Your task to perform on an android device: Search for flights from Zurich to Buenos aires Image 0: 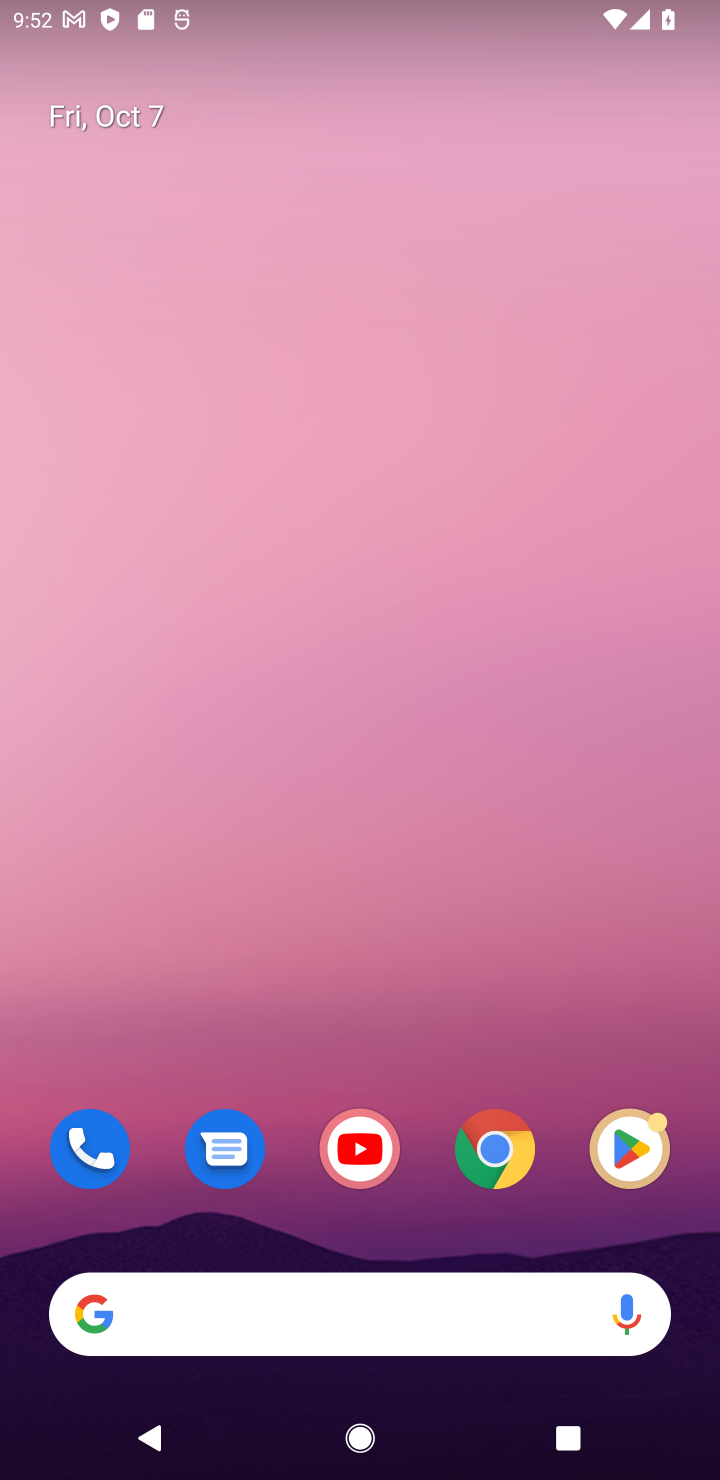
Step 0: click (256, 1309)
Your task to perform on an android device: Search for flights from Zurich to Buenos aires Image 1: 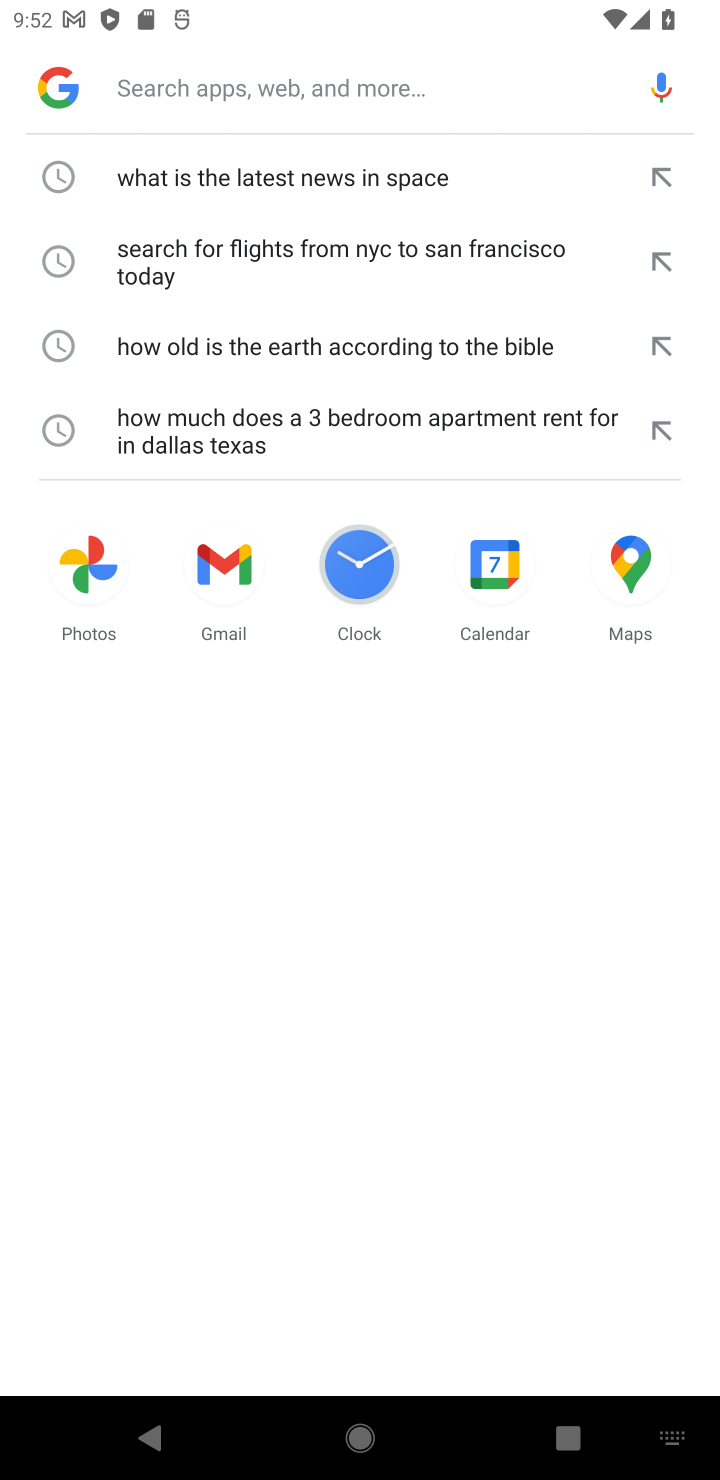
Step 1: type "Search for flights from Zurich to Buenos aires"
Your task to perform on an android device: Search for flights from Zurich to Buenos aires Image 2: 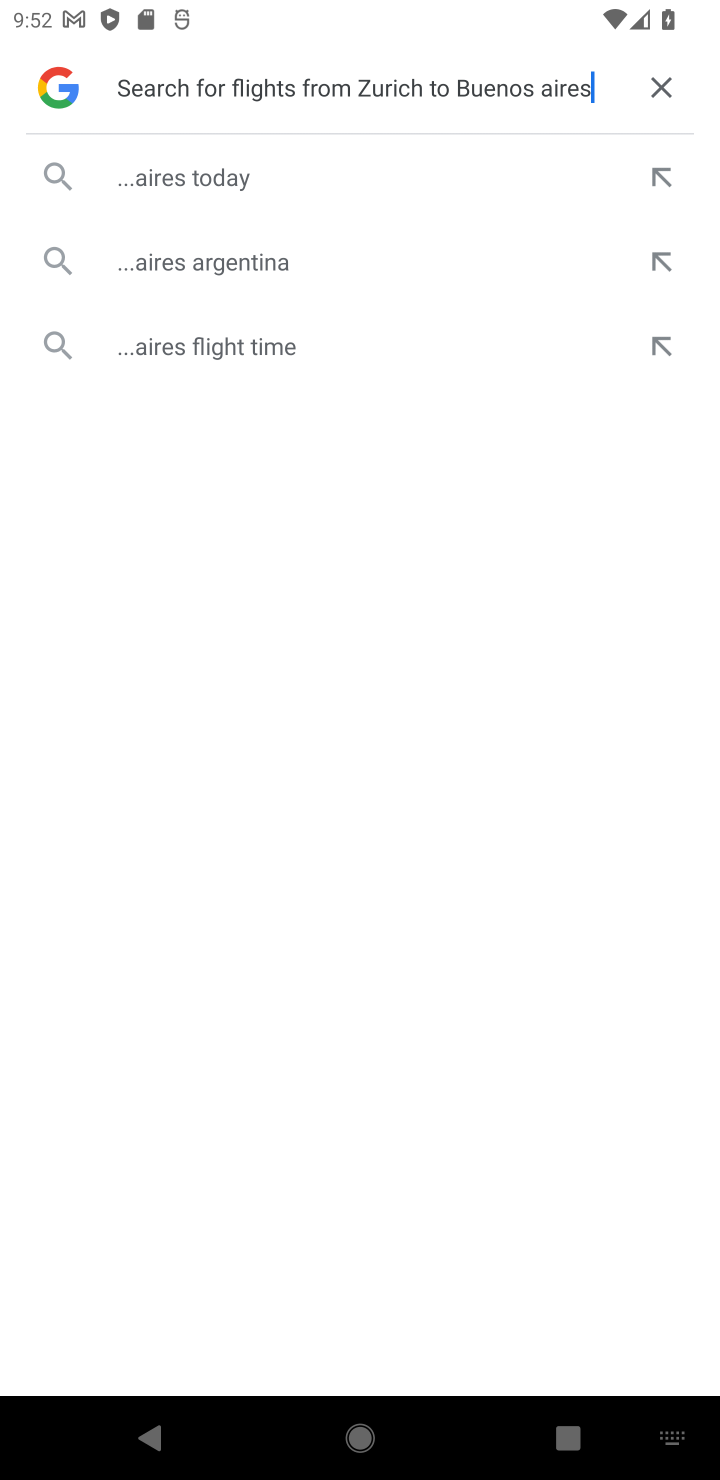
Step 2: click (279, 192)
Your task to perform on an android device: Search for flights from Zurich to Buenos aires Image 3: 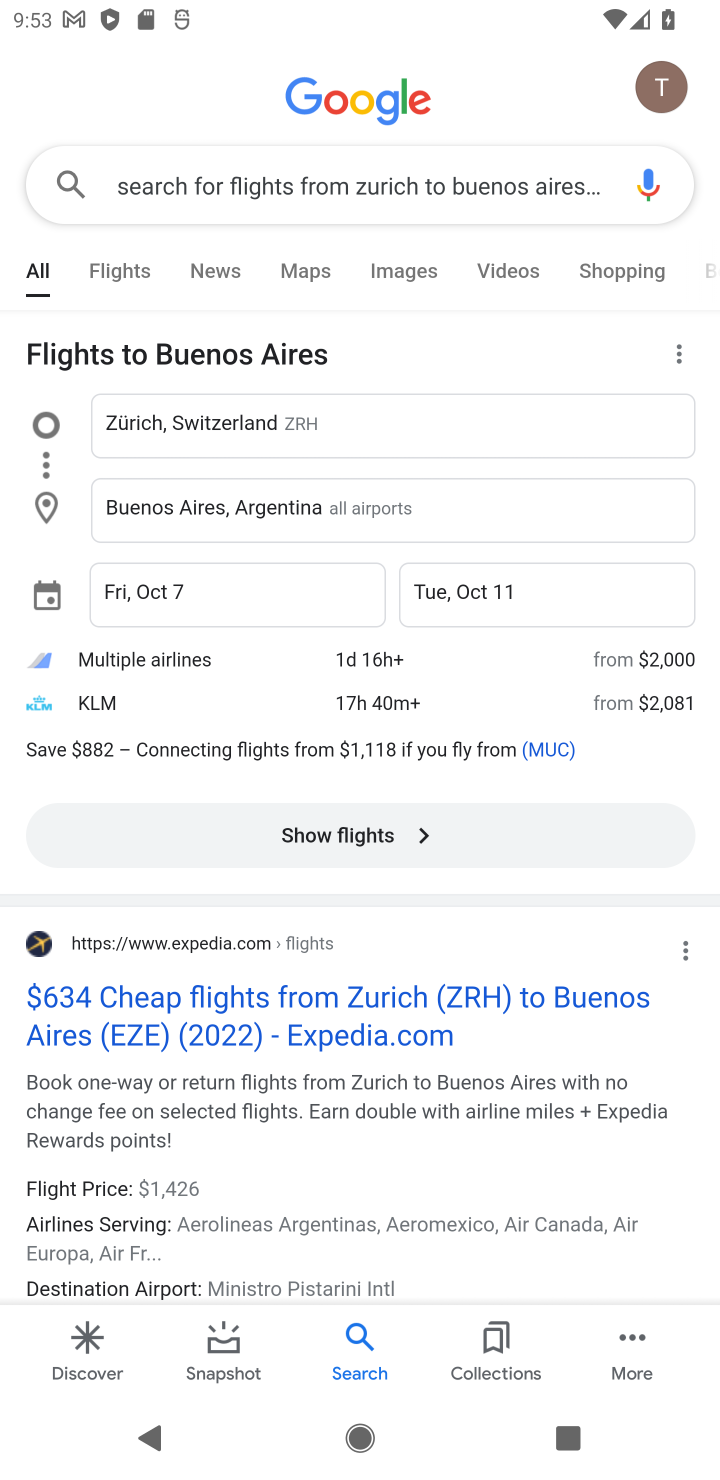
Step 3: task complete